Your task to perform on an android device: Is it going to rain today? Image 0: 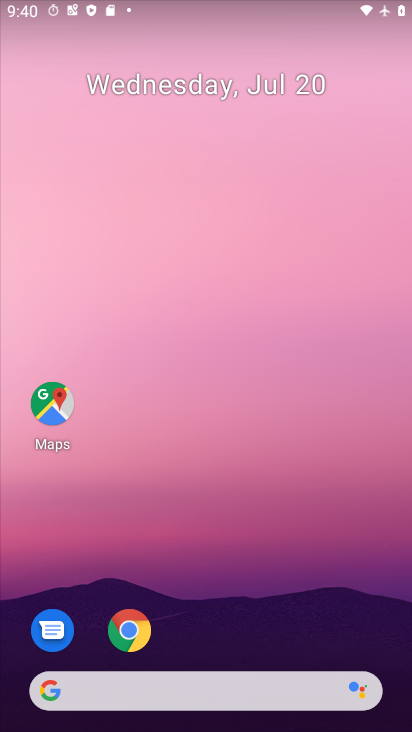
Step 0: drag from (211, 603) to (288, 100)
Your task to perform on an android device: Is it going to rain today? Image 1: 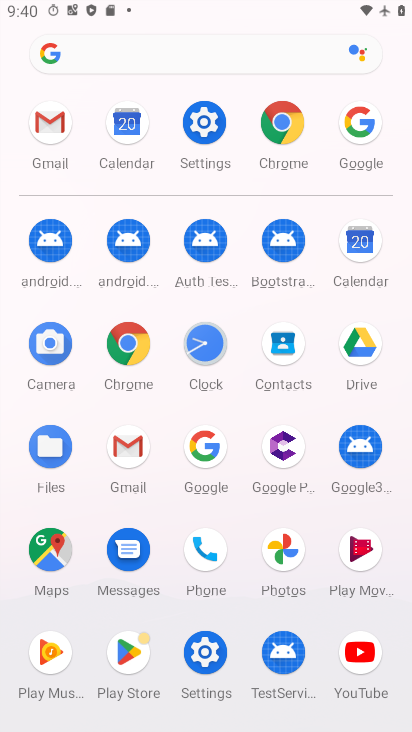
Step 1: click (207, 448)
Your task to perform on an android device: Is it going to rain today? Image 2: 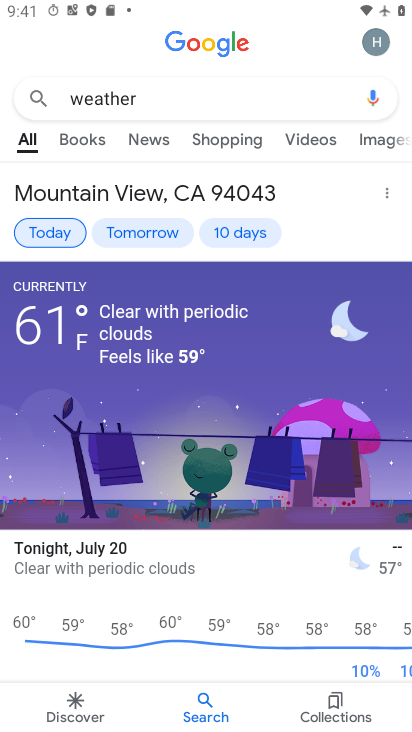
Step 2: task complete